Your task to perform on an android device: Go to eBay Image 0: 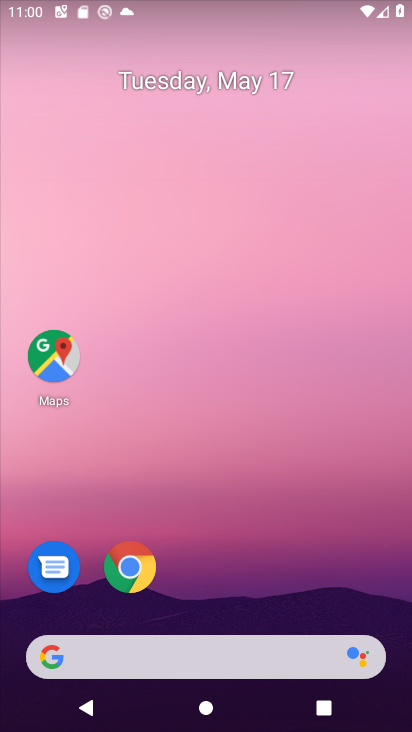
Step 0: click (133, 570)
Your task to perform on an android device: Go to eBay Image 1: 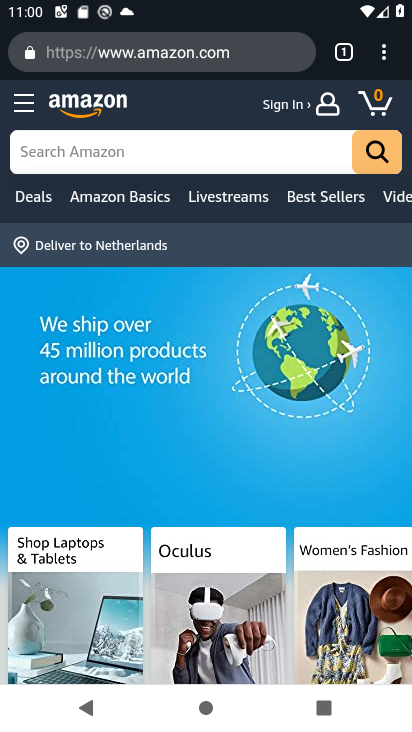
Step 1: click (349, 56)
Your task to perform on an android device: Go to eBay Image 2: 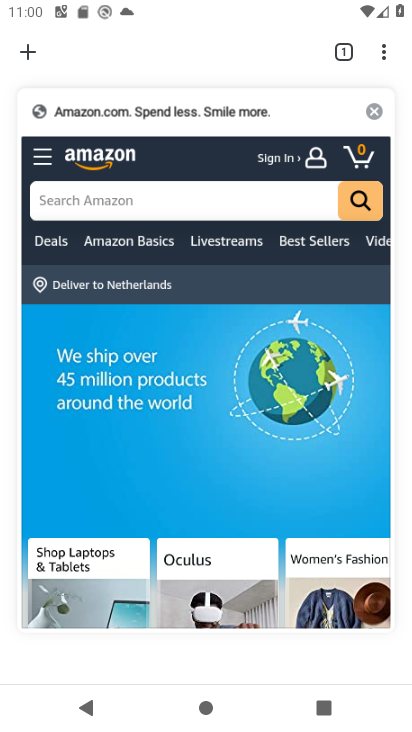
Step 2: click (29, 44)
Your task to perform on an android device: Go to eBay Image 3: 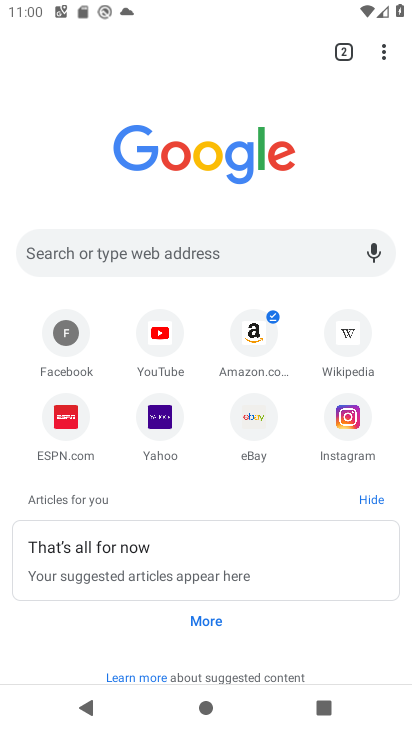
Step 3: click (256, 422)
Your task to perform on an android device: Go to eBay Image 4: 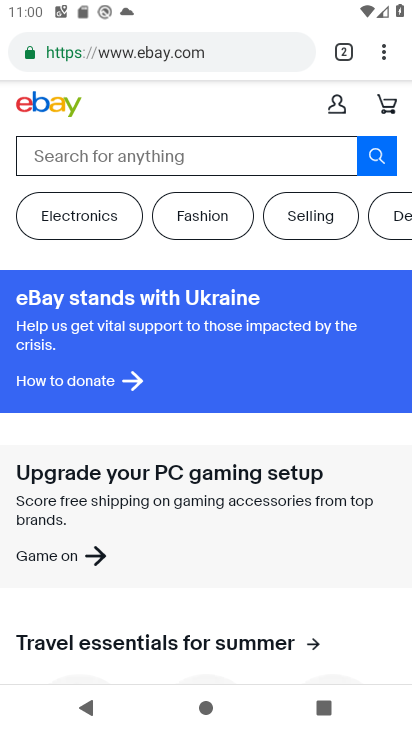
Step 4: task complete